Your task to perform on an android device: Do I have any events today? Image 0: 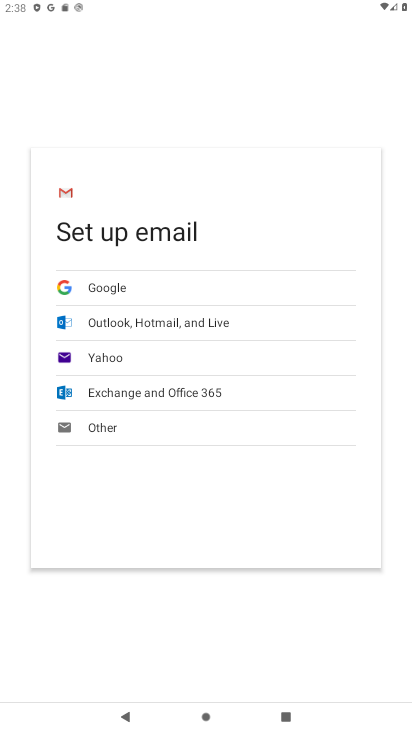
Step 0: press home button
Your task to perform on an android device: Do I have any events today? Image 1: 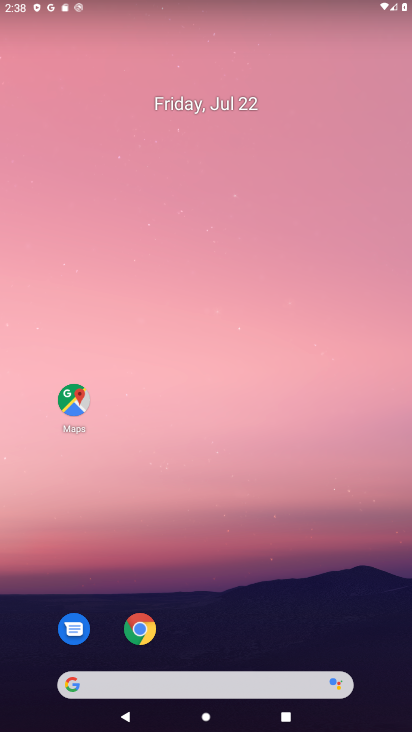
Step 1: drag from (220, 596) to (239, 79)
Your task to perform on an android device: Do I have any events today? Image 2: 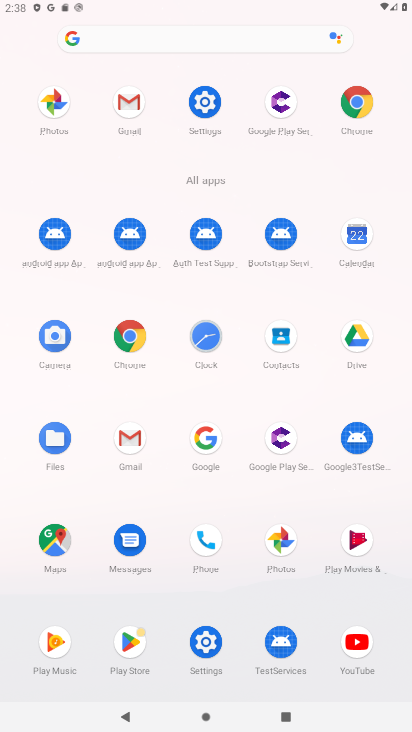
Step 2: click (358, 236)
Your task to perform on an android device: Do I have any events today? Image 3: 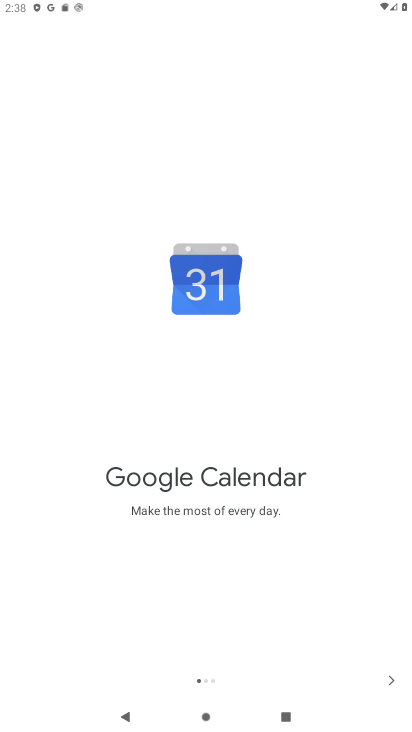
Step 3: click (390, 682)
Your task to perform on an android device: Do I have any events today? Image 4: 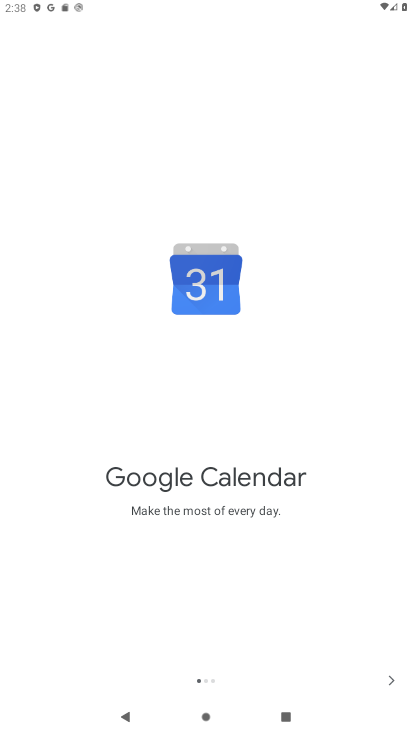
Step 4: click (390, 682)
Your task to perform on an android device: Do I have any events today? Image 5: 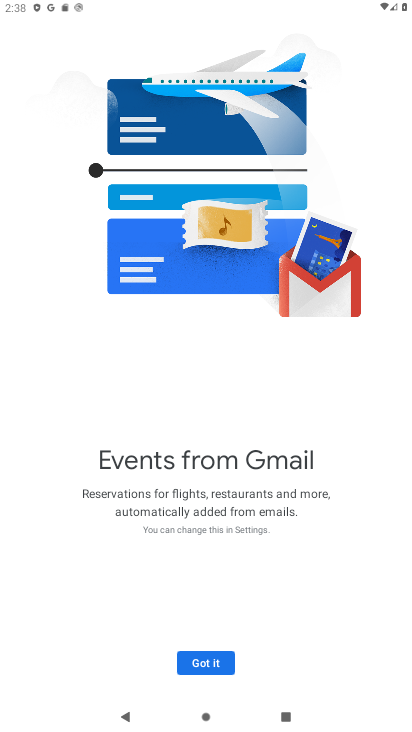
Step 5: click (209, 660)
Your task to perform on an android device: Do I have any events today? Image 6: 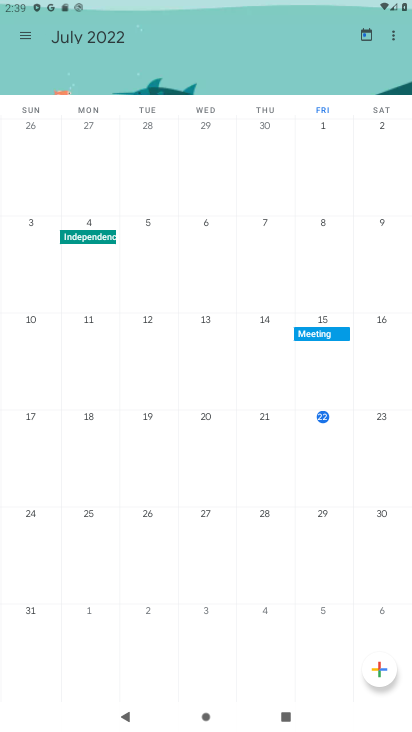
Step 6: click (324, 411)
Your task to perform on an android device: Do I have any events today? Image 7: 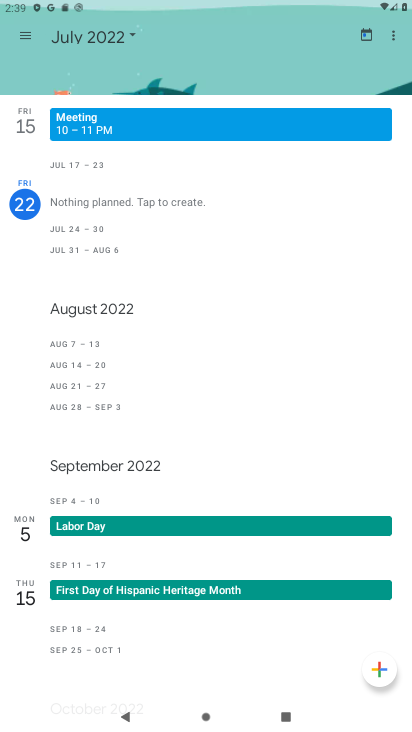
Step 7: task complete